Your task to perform on an android device: Open Youtube and go to the subscriptions tab Image 0: 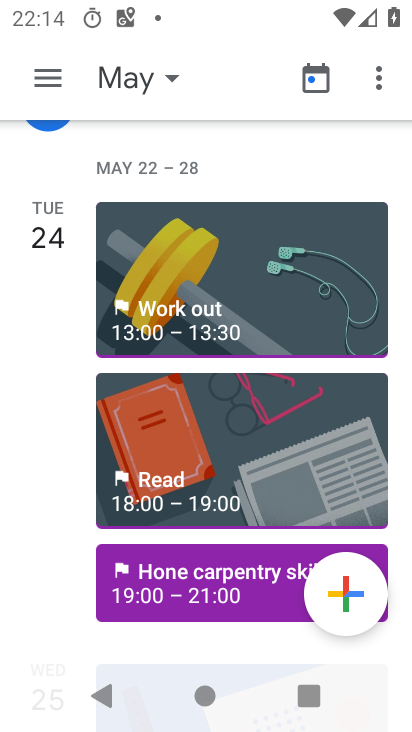
Step 0: press home button
Your task to perform on an android device: Open Youtube and go to the subscriptions tab Image 1: 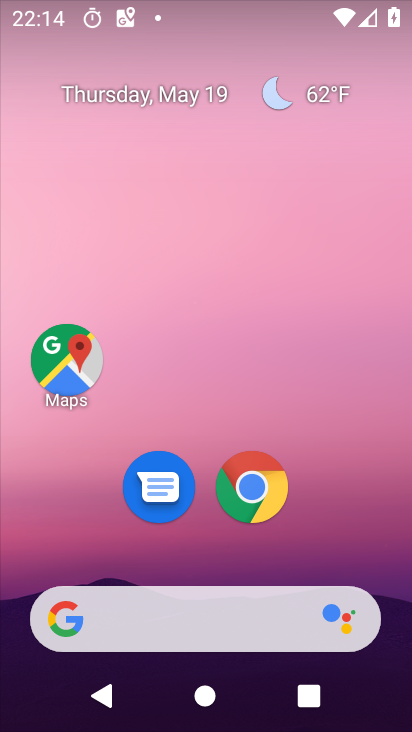
Step 1: drag from (350, 550) to (326, 148)
Your task to perform on an android device: Open Youtube and go to the subscriptions tab Image 2: 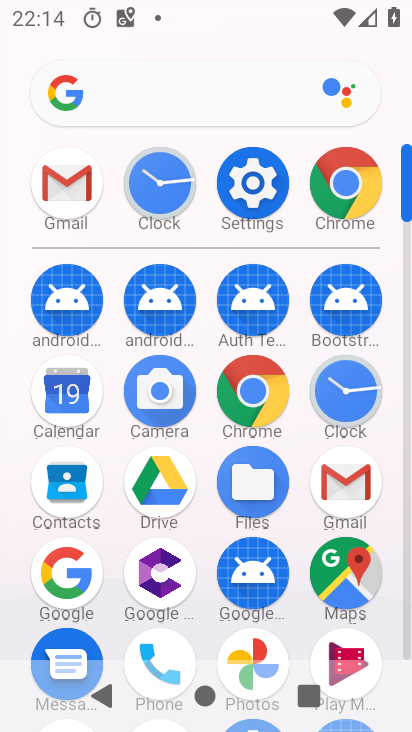
Step 2: drag from (297, 630) to (277, 327)
Your task to perform on an android device: Open Youtube and go to the subscriptions tab Image 3: 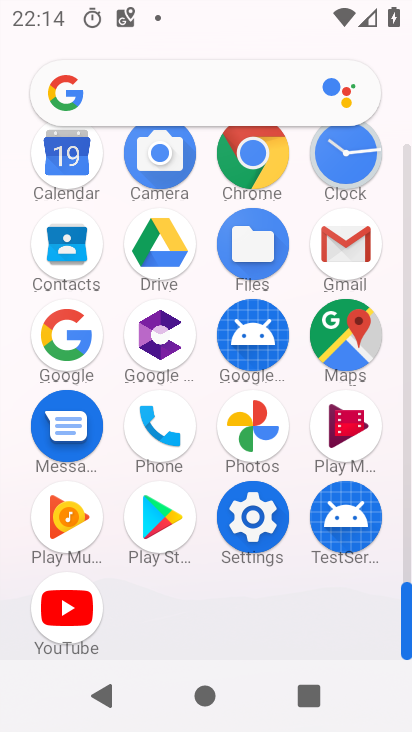
Step 3: click (82, 611)
Your task to perform on an android device: Open Youtube and go to the subscriptions tab Image 4: 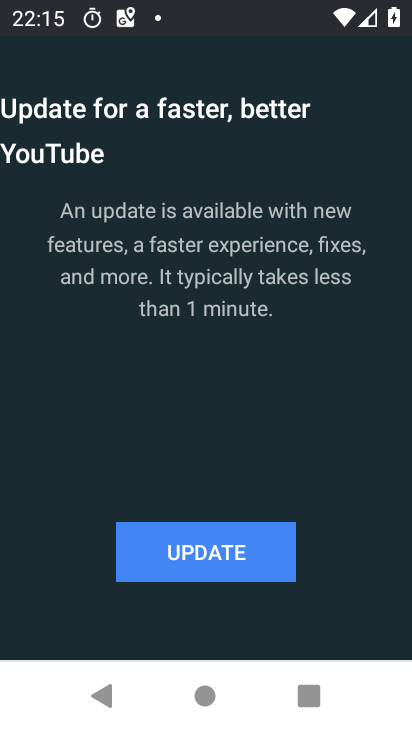
Step 4: click (226, 550)
Your task to perform on an android device: Open Youtube and go to the subscriptions tab Image 5: 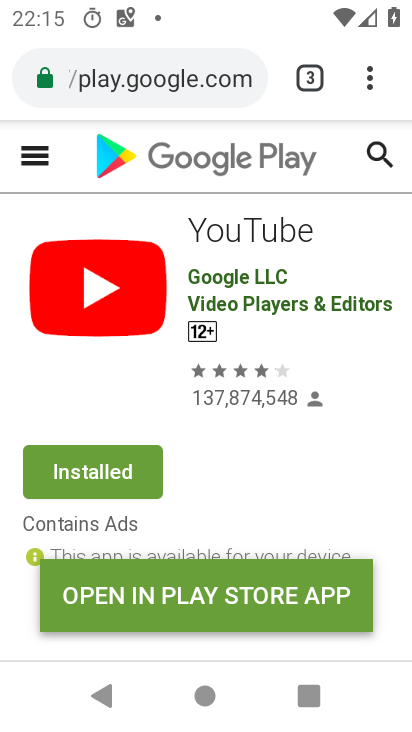
Step 5: click (253, 611)
Your task to perform on an android device: Open Youtube and go to the subscriptions tab Image 6: 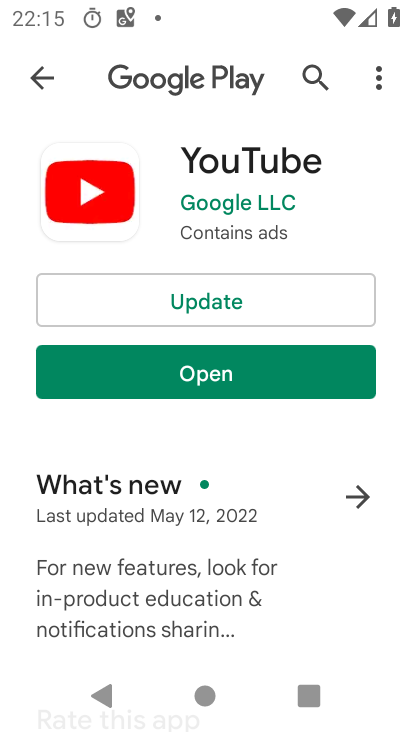
Step 6: click (259, 309)
Your task to perform on an android device: Open Youtube and go to the subscriptions tab Image 7: 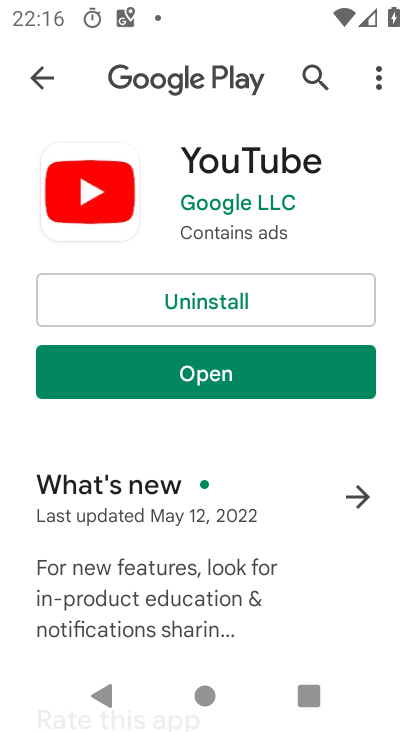
Step 7: click (272, 367)
Your task to perform on an android device: Open Youtube and go to the subscriptions tab Image 8: 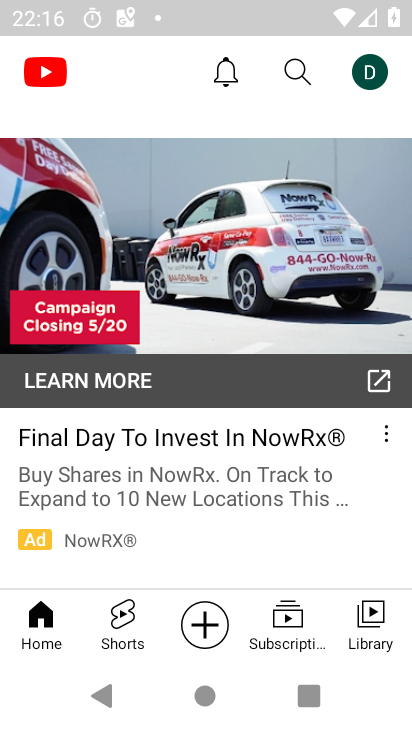
Step 8: click (300, 620)
Your task to perform on an android device: Open Youtube and go to the subscriptions tab Image 9: 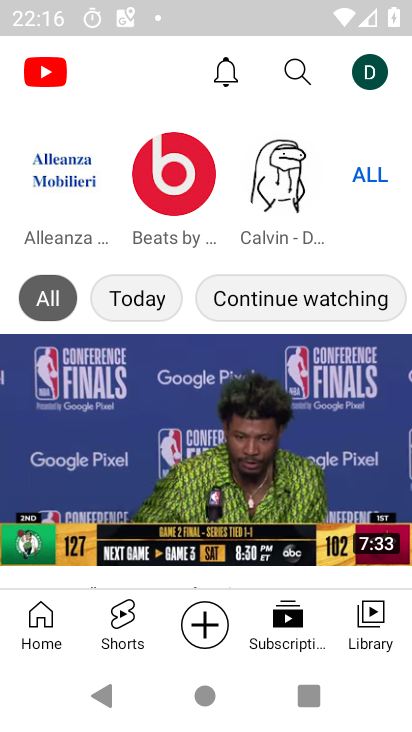
Step 9: task complete